Your task to perform on an android device: add a label to a message in the gmail app Image 0: 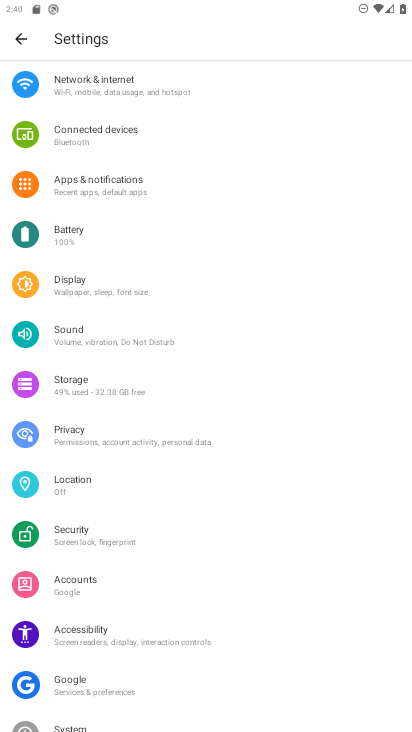
Step 0: press home button
Your task to perform on an android device: add a label to a message in the gmail app Image 1: 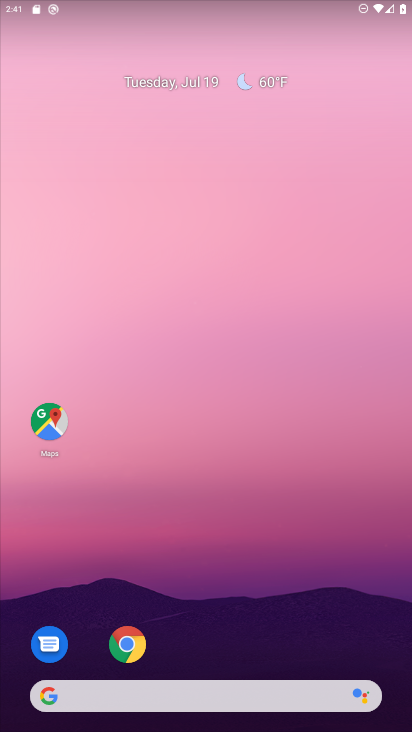
Step 1: drag from (316, 427) to (256, 121)
Your task to perform on an android device: add a label to a message in the gmail app Image 2: 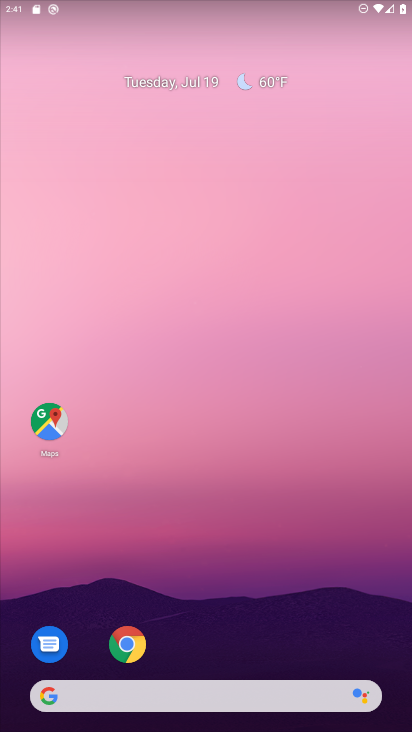
Step 2: drag from (397, 711) to (283, 114)
Your task to perform on an android device: add a label to a message in the gmail app Image 3: 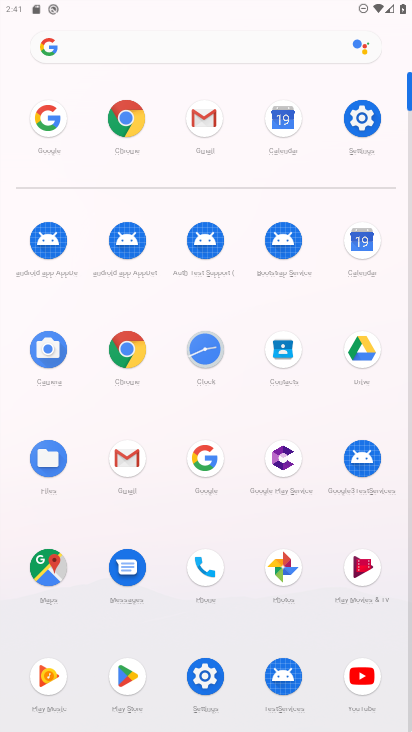
Step 3: click (201, 125)
Your task to perform on an android device: add a label to a message in the gmail app Image 4: 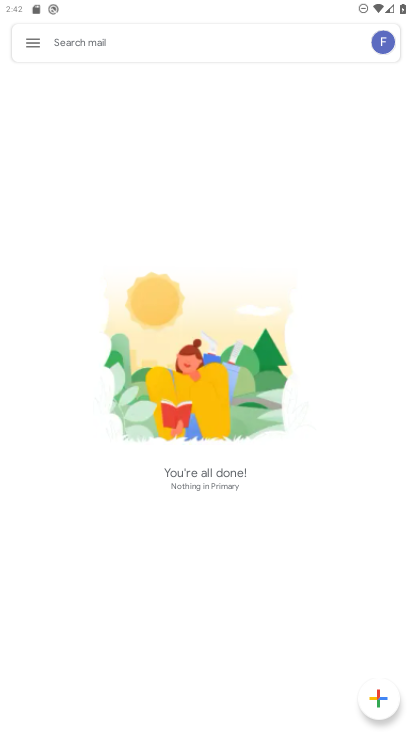
Step 4: task complete